Your task to perform on an android device: set an alarm Image 0: 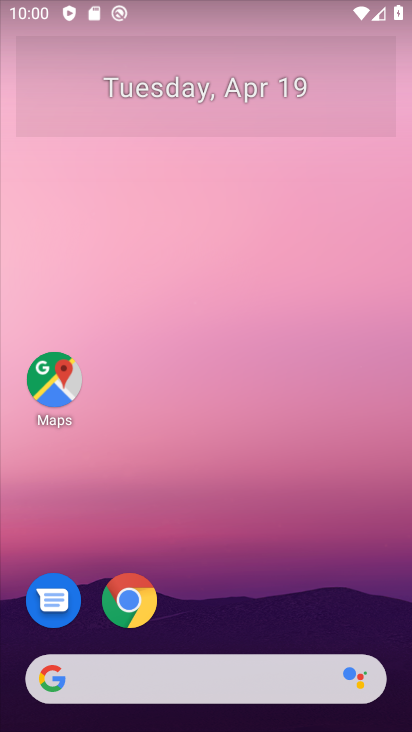
Step 0: drag from (288, 511) to (277, 0)
Your task to perform on an android device: set an alarm Image 1: 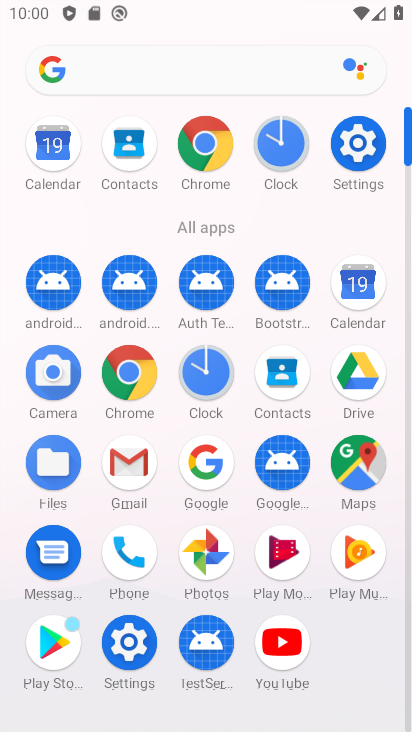
Step 1: click (209, 394)
Your task to perform on an android device: set an alarm Image 2: 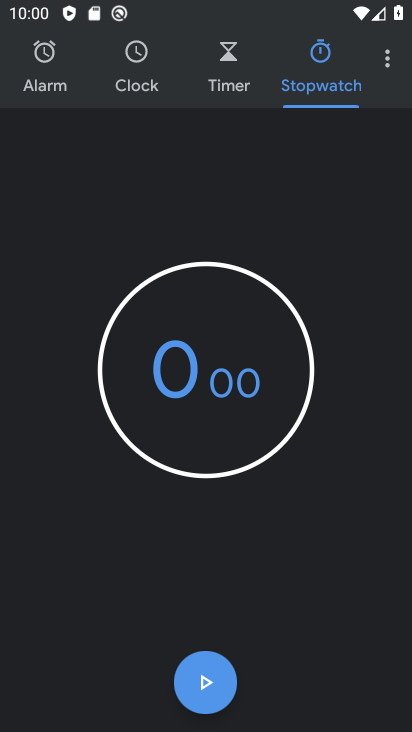
Step 2: click (63, 81)
Your task to perform on an android device: set an alarm Image 3: 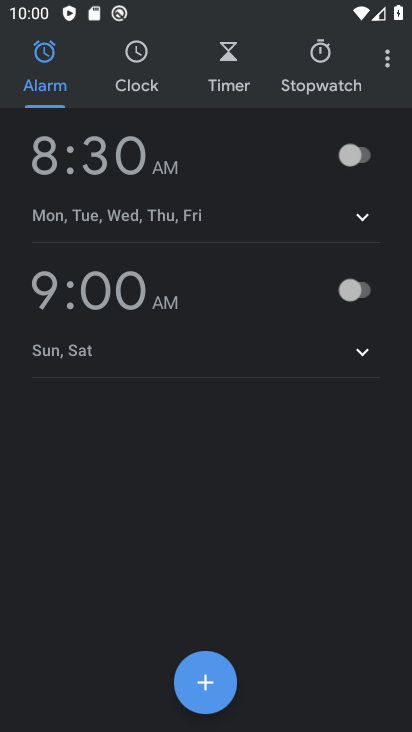
Step 3: click (370, 293)
Your task to perform on an android device: set an alarm Image 4: 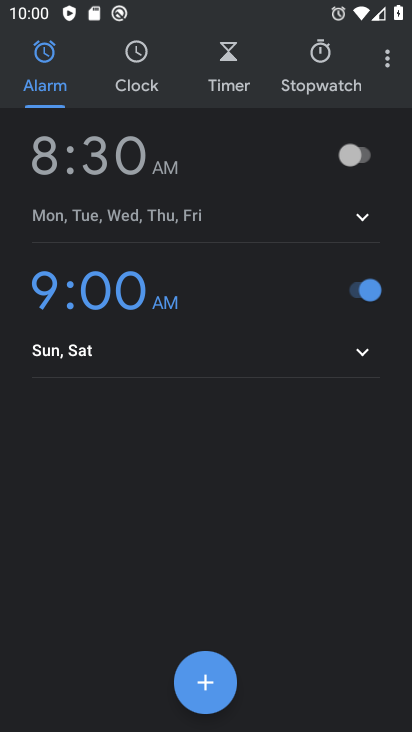
Step 4: task complete